Your task to perform on an android device: turn on the 24-hour format for clock Image 0: 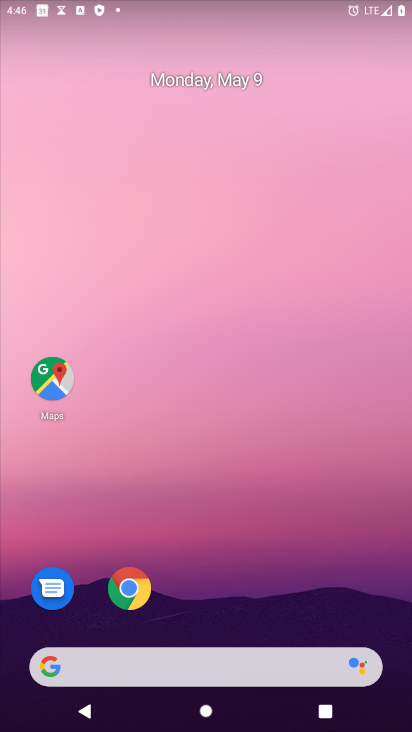
Step 0: press home button
Your task to perform on an android device: turn on the 24-hour format for clock Image 1: 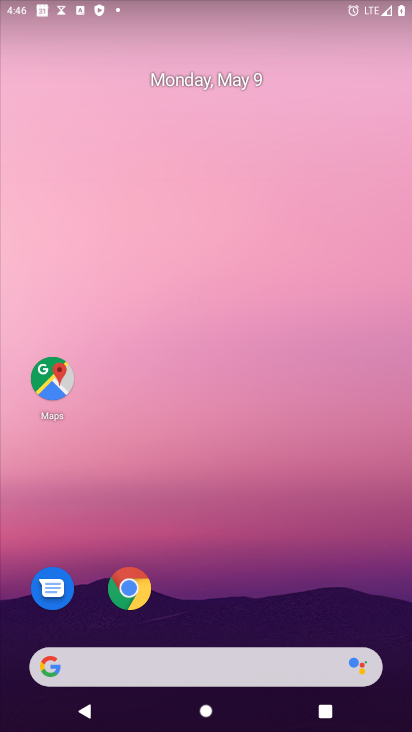
Step 1: drag from (337, 570) to (224, 93)
Your task to perform on an android device: turn on the 24-hour format for clock Image 2: 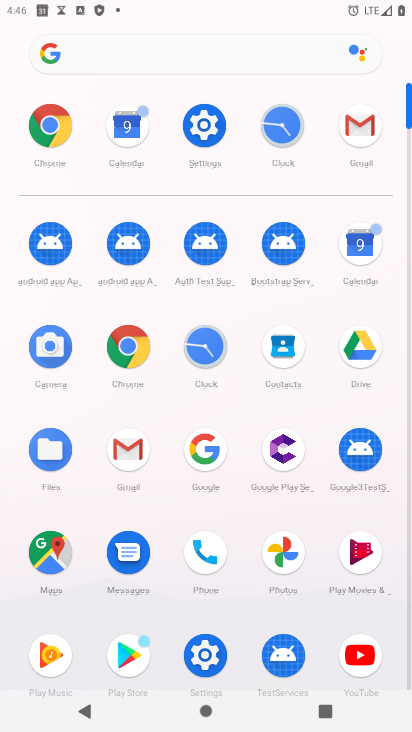
Step 2: click (274, 132)
Your task to perform on an android device: turn on the 24-hour format for clock Image 3: 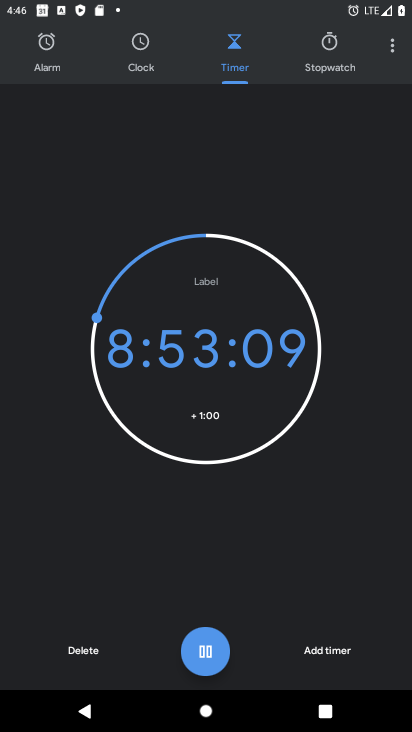
Step 3: click (393, 49)
Your task to perform on an android device: turn on the 24-hour format for clock Image 4: 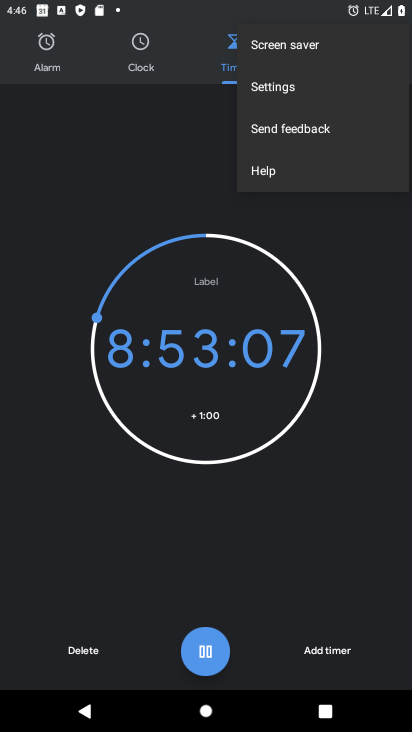
Step 4: click (303, 90)
Your task to perform on an android device: turn on the 24-hour format for clock Image 5: 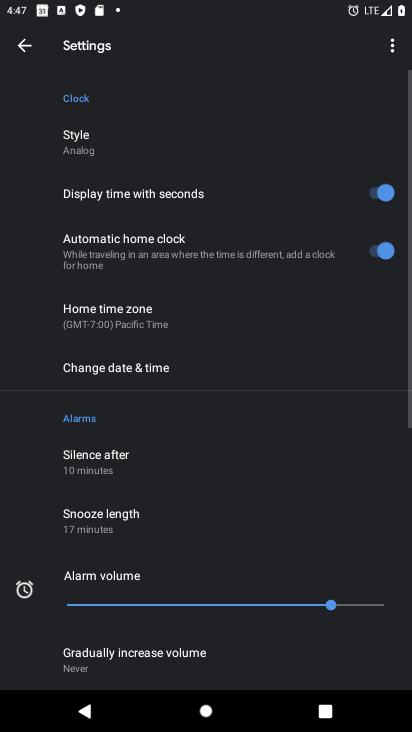
Step 5: click (125, 362)
Your task to perform on an android device: turn on the 24-hour format for clock Image 6: 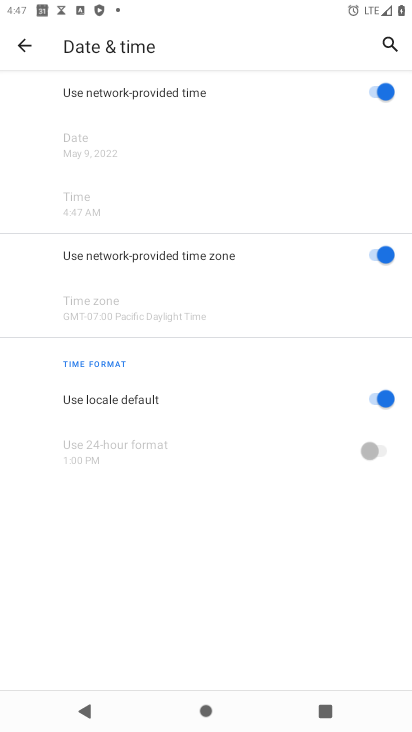
Step 6: click (371, 447)
Your task to perform on an android device: turn on the 24-hour format for clock Image 7: 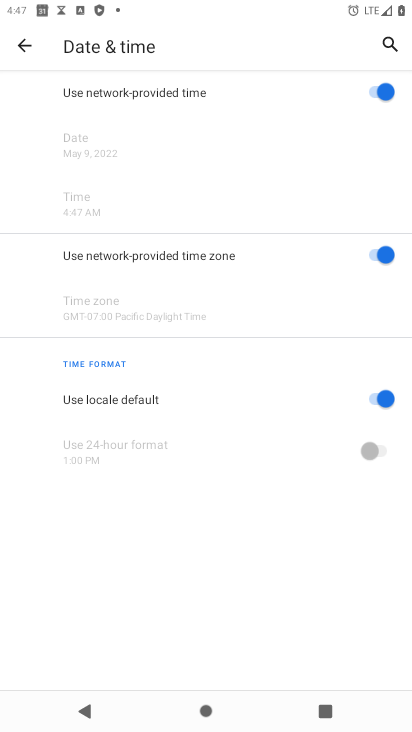
Step 7: click (375, 397)
Your task to perform on an android device: turn on the 24-hour format for clock Image 8: 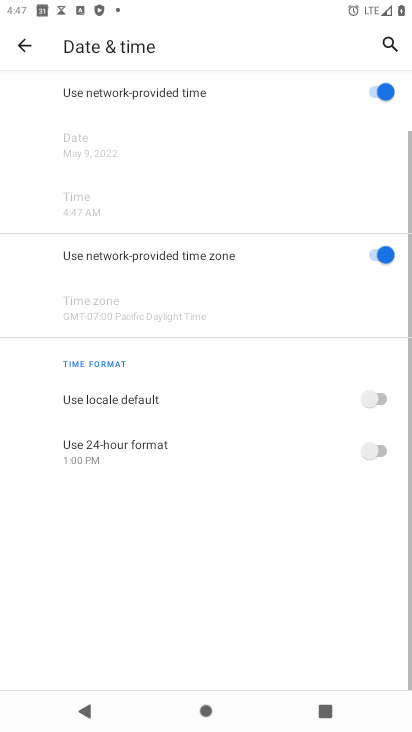
Step 8: click (379, 448)
Your task to perform on an android device: turn on the 24-hour format for clock Image 9: 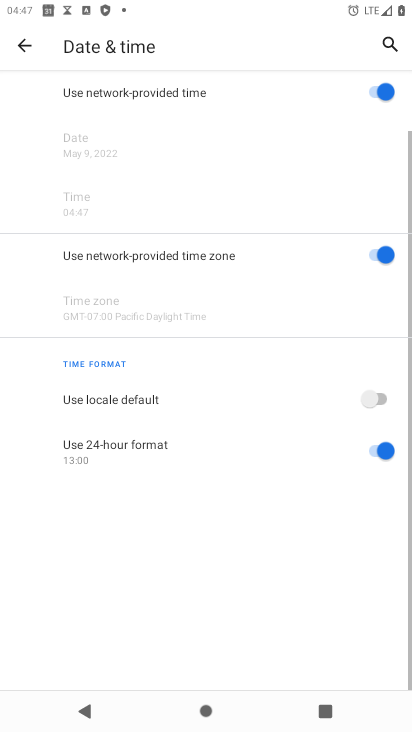
Step 9: task complete